Your task to perform on an android device: Is it going to rain today? Image 0: 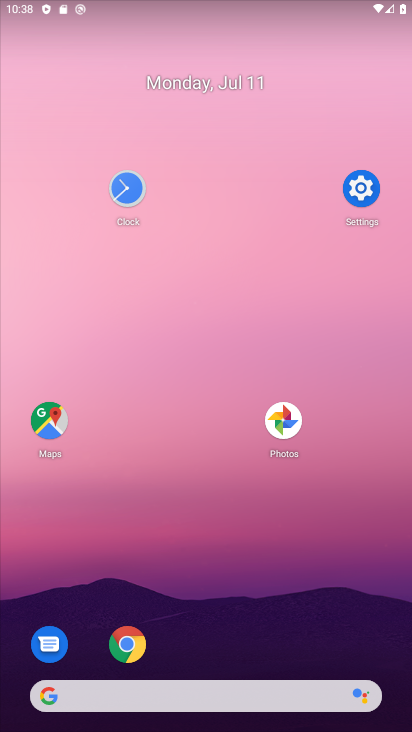
Step 0: click (144, 636)
Your task to perform on an android device: Is it going to rain today? Image 1: 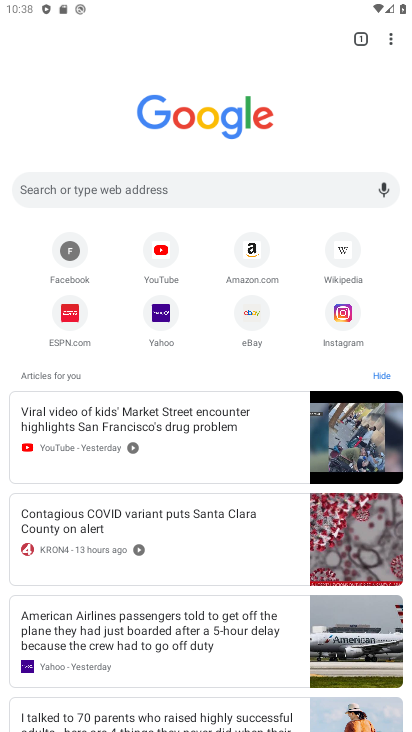
Step 1: click (189, 185)
Your task to perform on an android device: Is it going to rain today? Image 2: 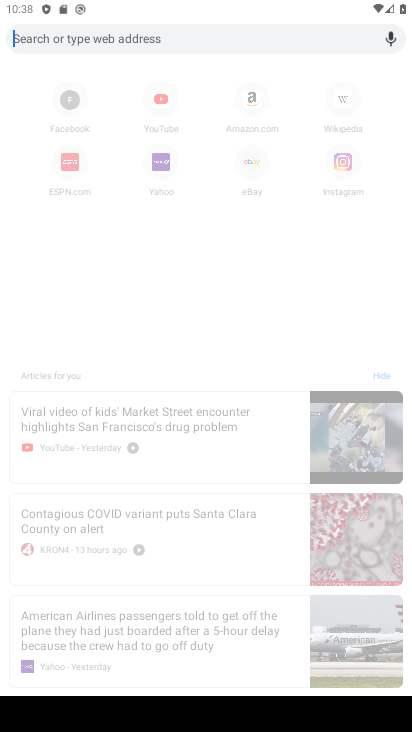
Step 2: type "weather"
Your task to perform on an android device: Is it going to rain today? Image 3: 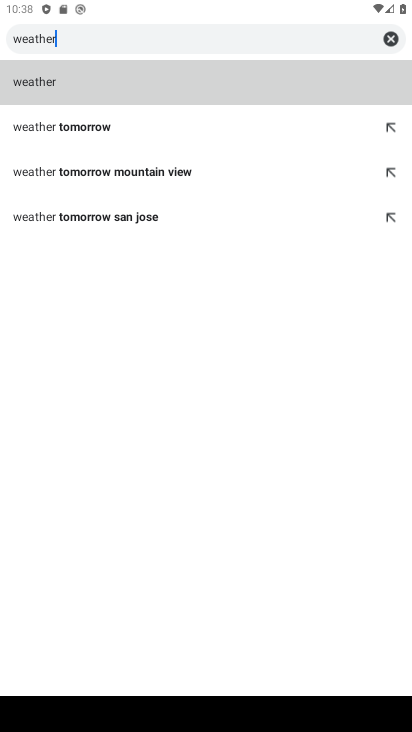
Step 3: click (165, 94)
Your task to perform on an android device: Is it going to rain today? Image 4: 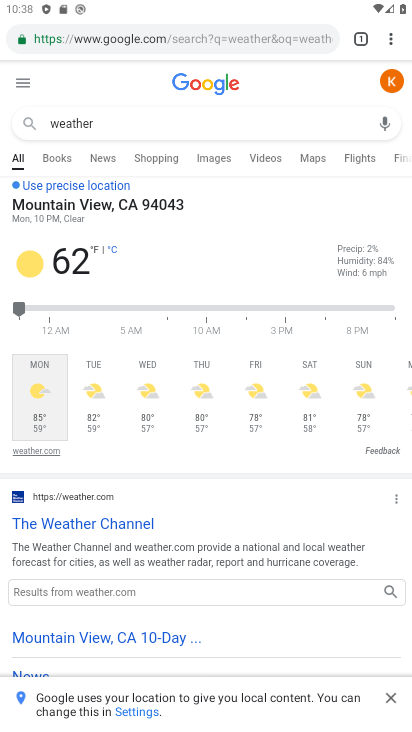
Step 4: task complete